Your task to perform on an android device: Show me recent news Image 0: 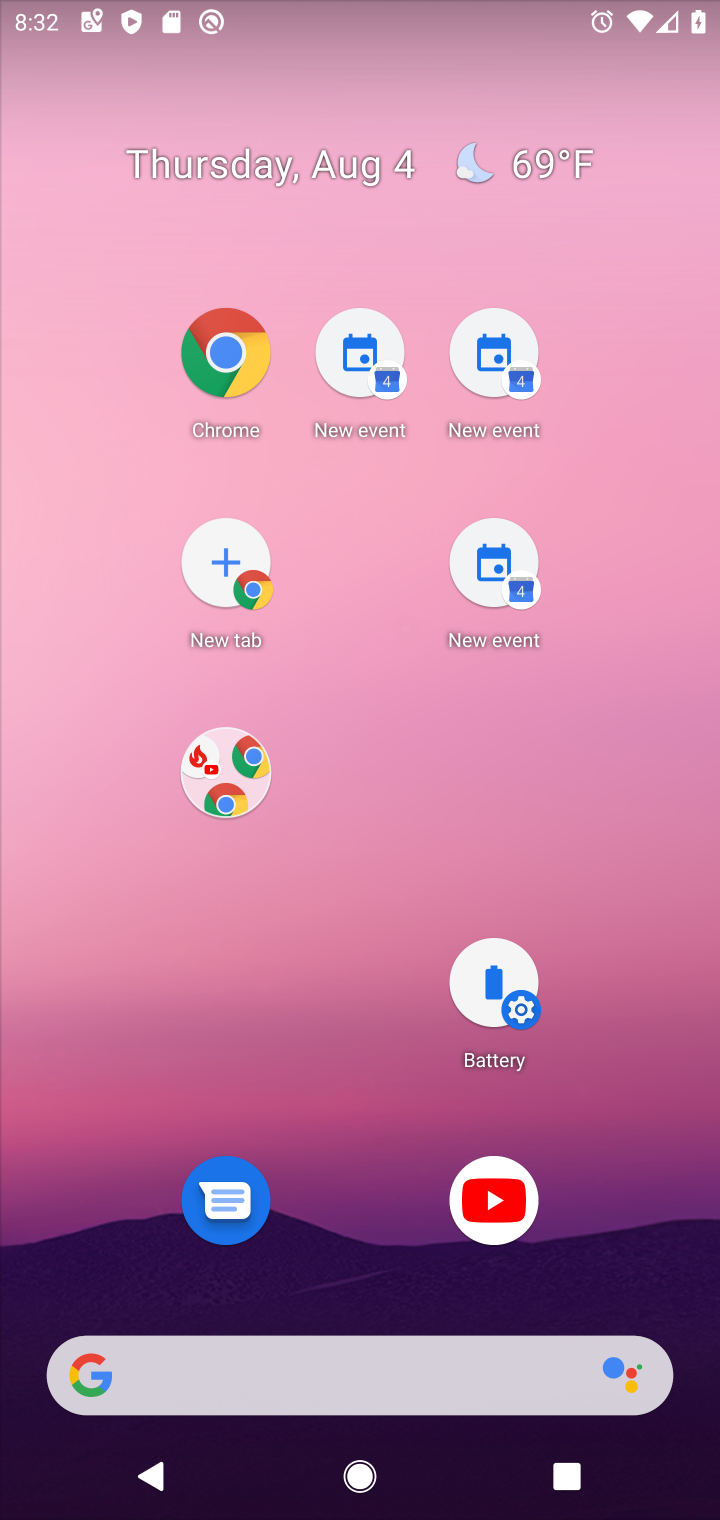
Step 0: click (408, 418)
Your task to perform on an android device: Show me recent news Image 1: 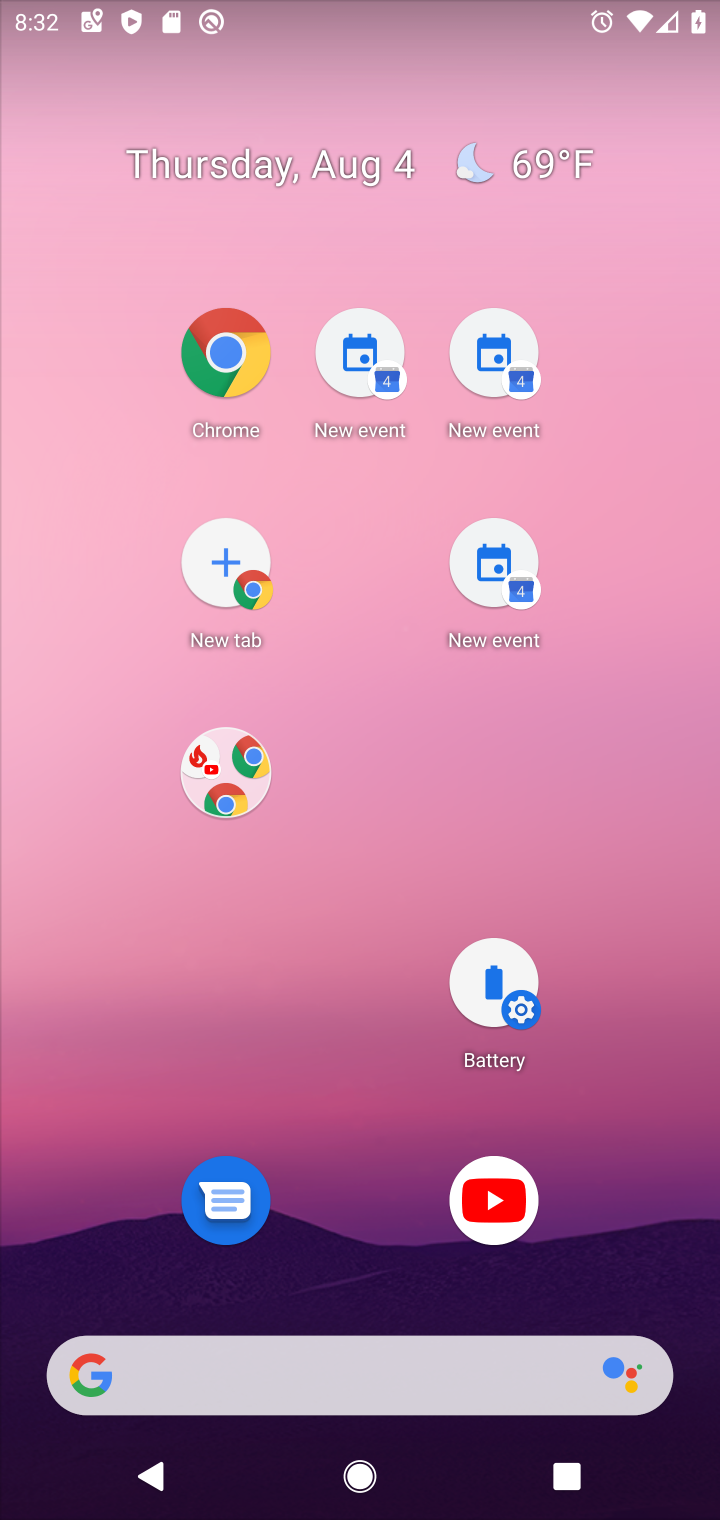
Step 1: drag from (431, 474) to (395, 301)
Your task to perform on an android device: Show me recent news Image 2: 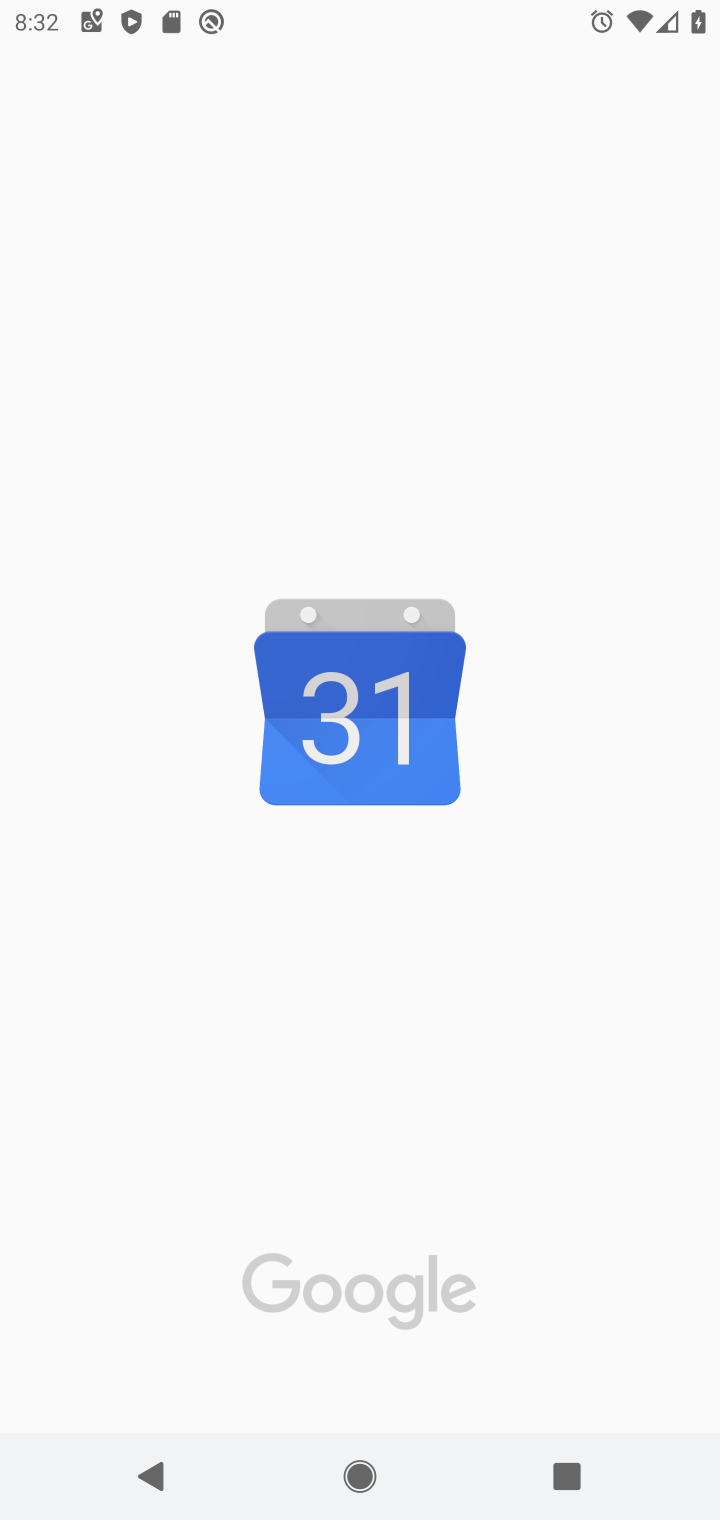
Step 2: drag from (303, 738) to (291, 299)
Your task to perform on an android device: Show me recent news Image 3: 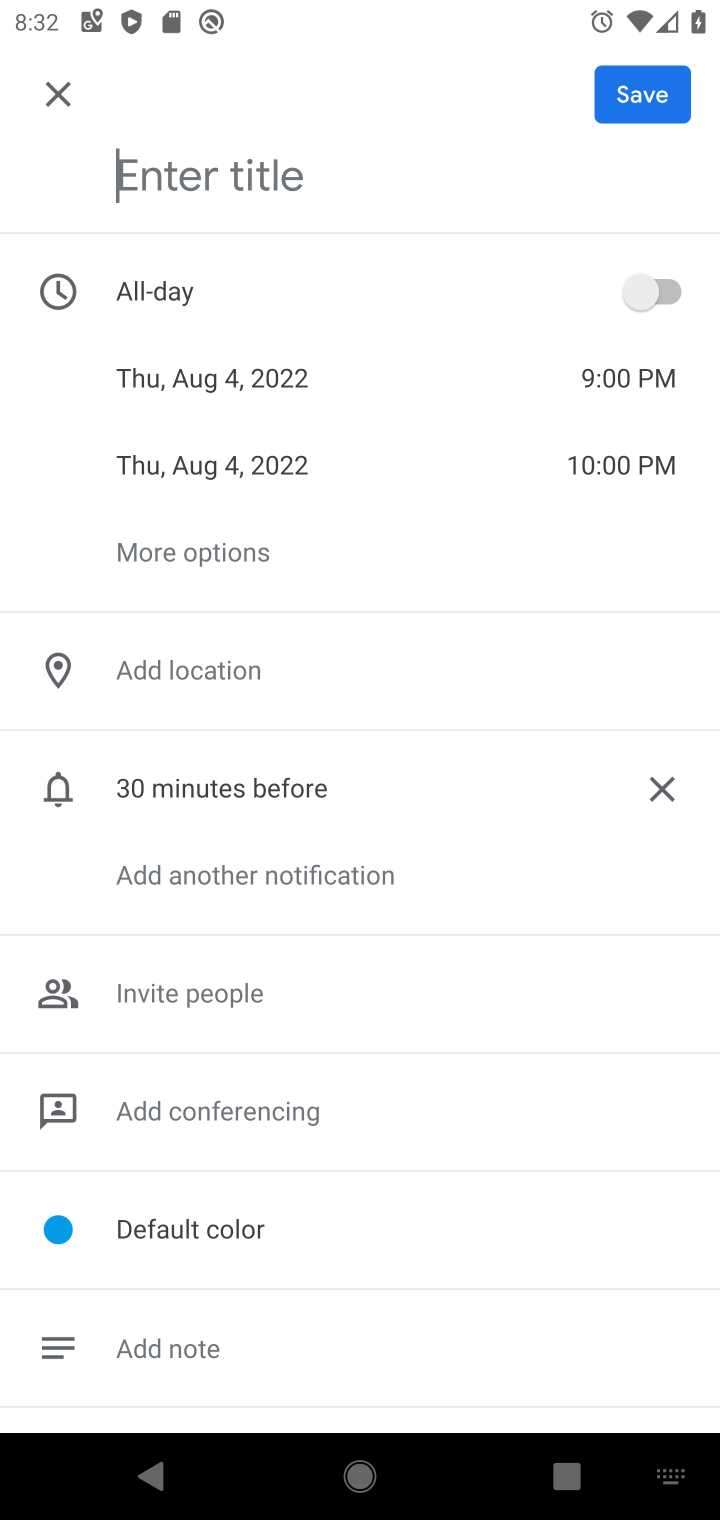
Step 3: click (45, 90)
Your task to perform on an android device: Show me recent news Image 4: 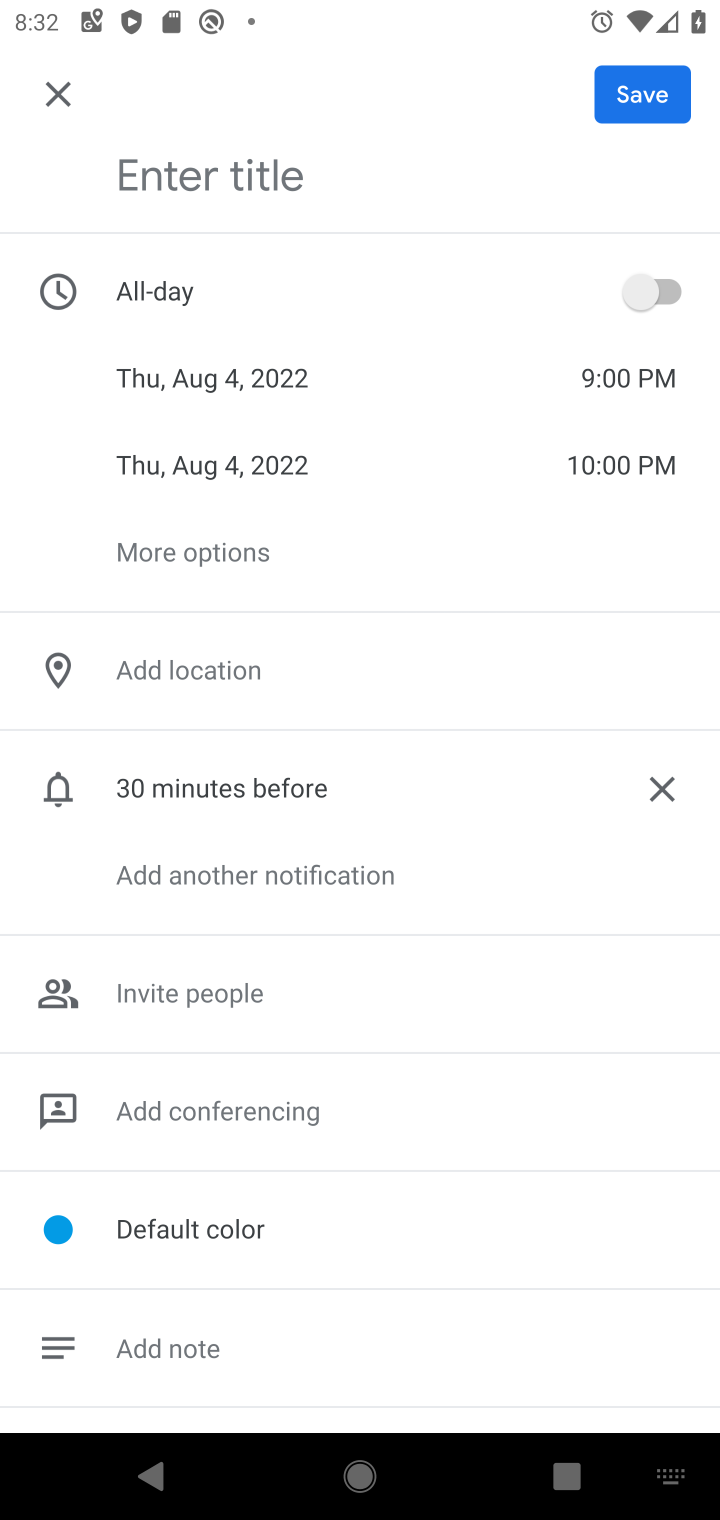
Step 4: click (52, 92)
Your task to perform on an android device: Show me recent news Image 5: 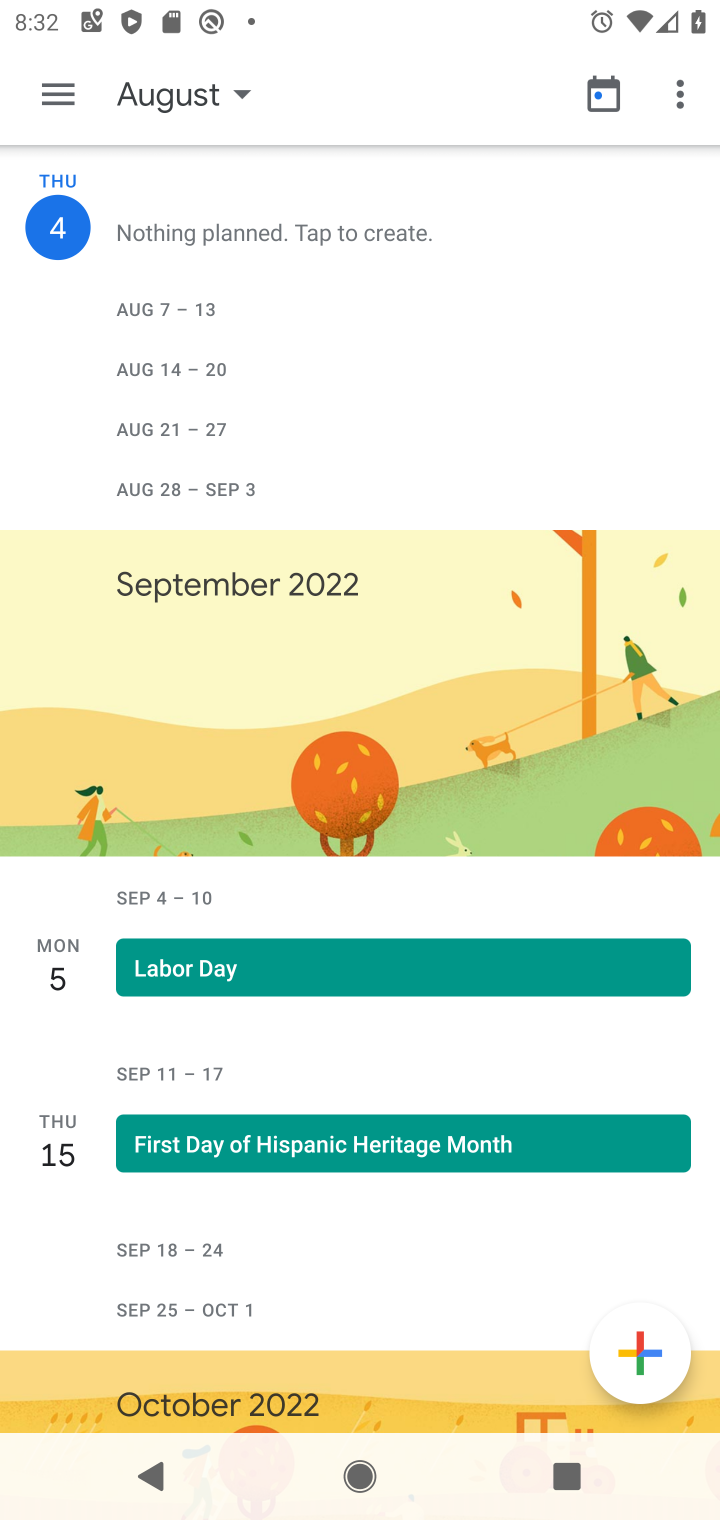
Step 5: press back button
Your task to perform on an android device: Show me recent news Image 6: 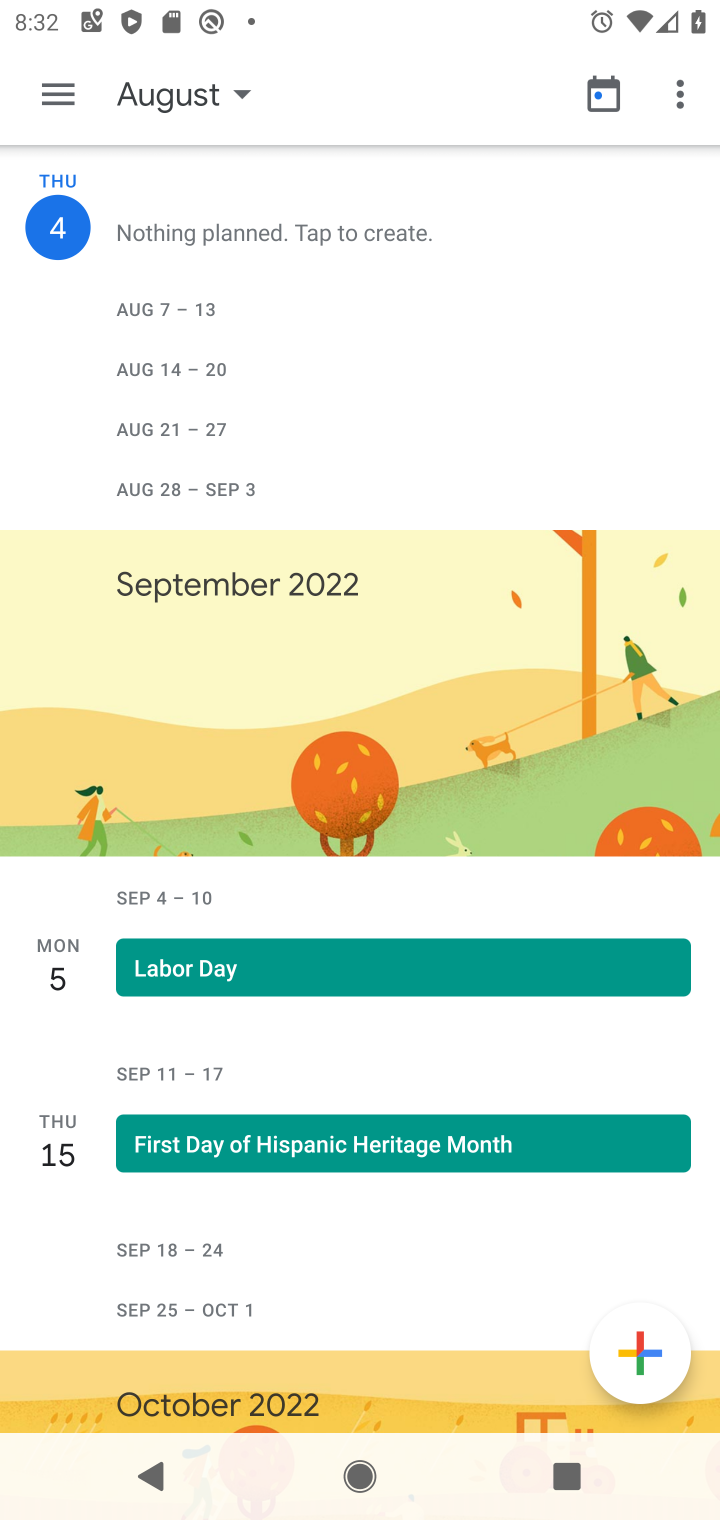
Step 6: press back button
Your task to perform on an android device: Show me recent news Image 7: 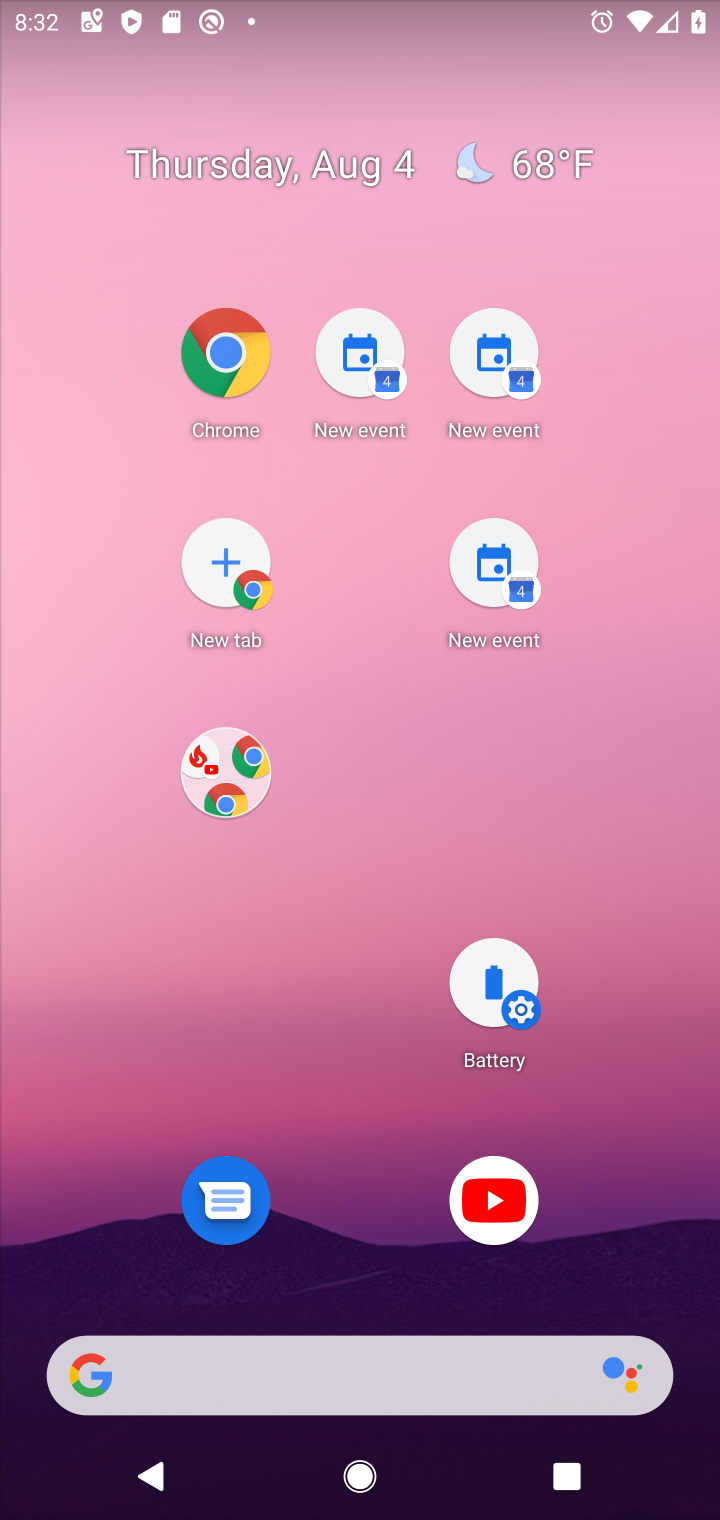
Step 7: press back button
Your task to perform on an android device: Show me recent news Image 8: 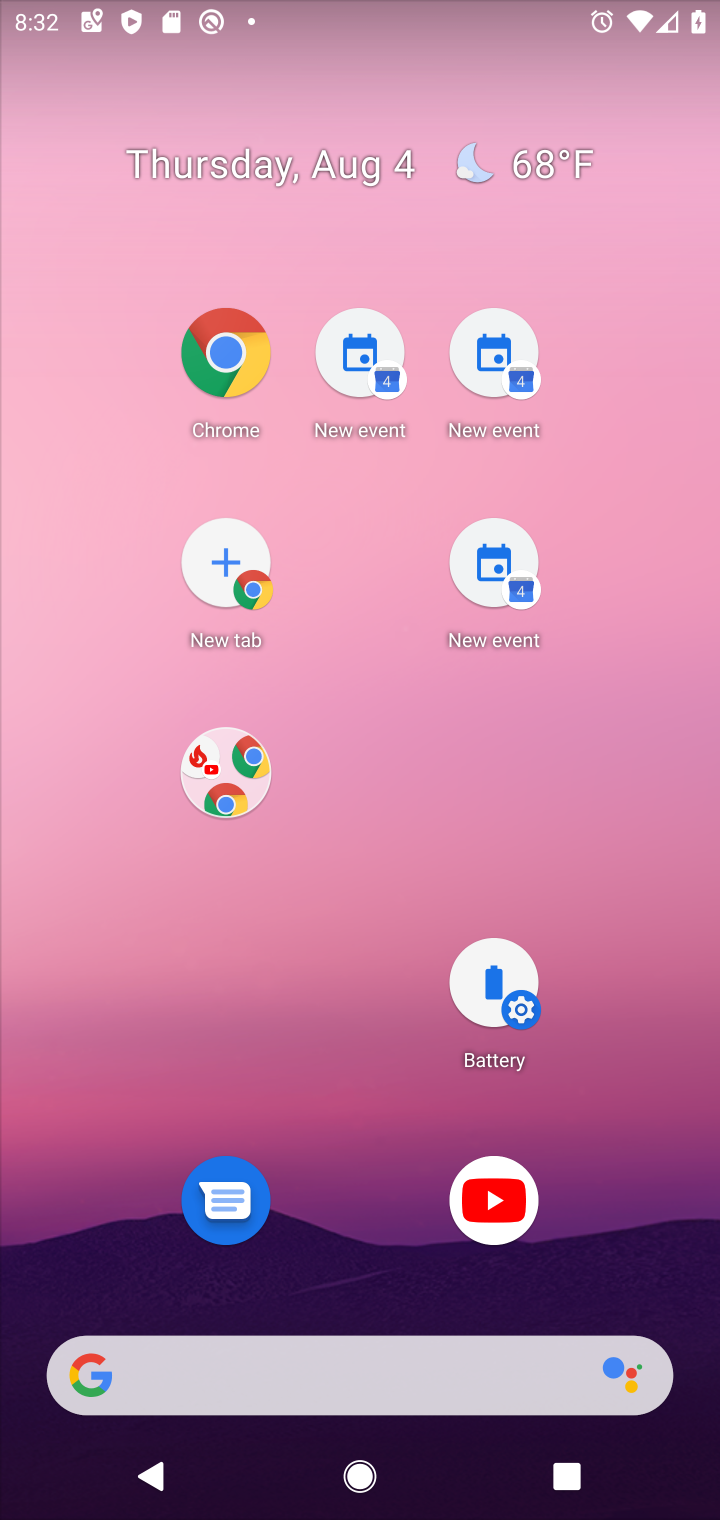
Step 8: drag from (399, 518) to (330, 29)
Your task to perform on an android device: Show me recent news Image 9: 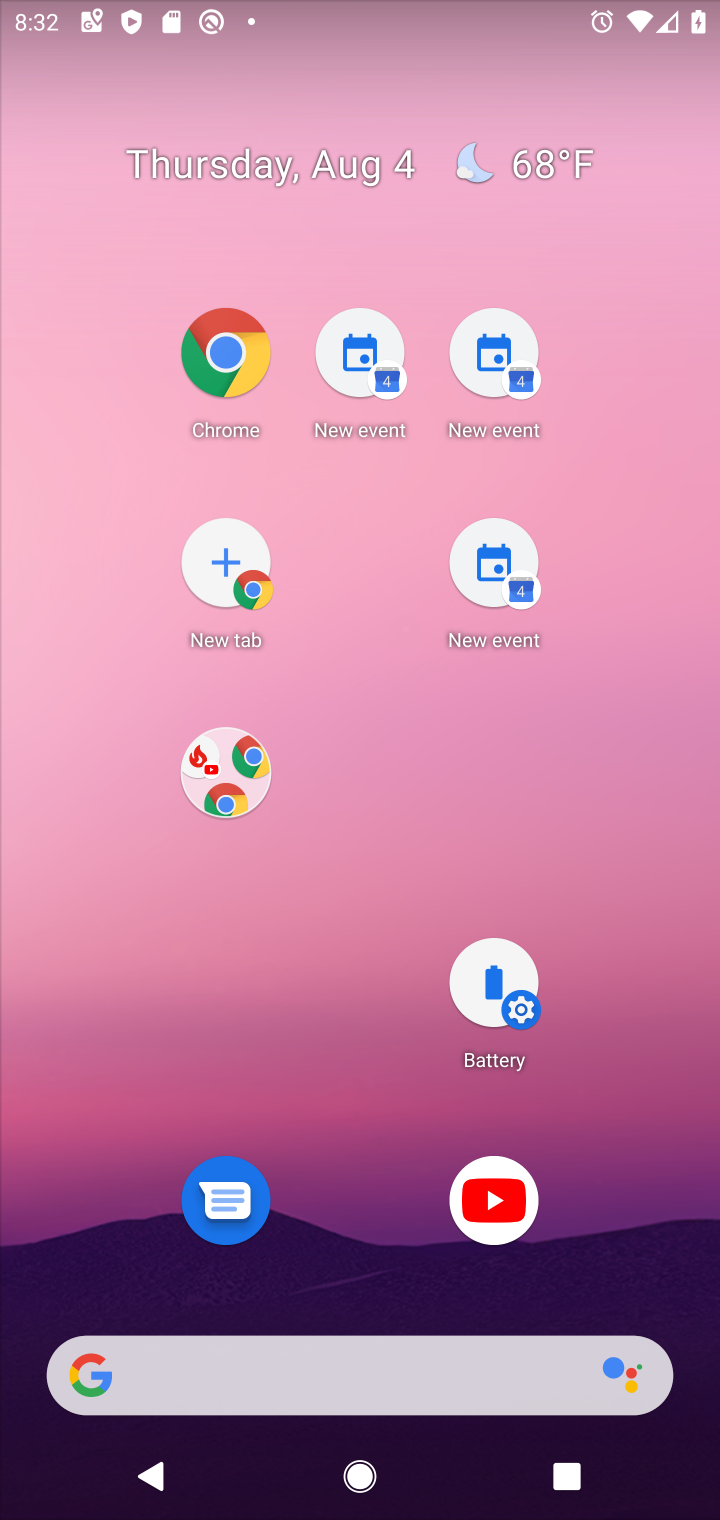
Step 9: drag from (176, 355) to (266, 263)
Your task to perform on an android device: Show me recent news Image 10: 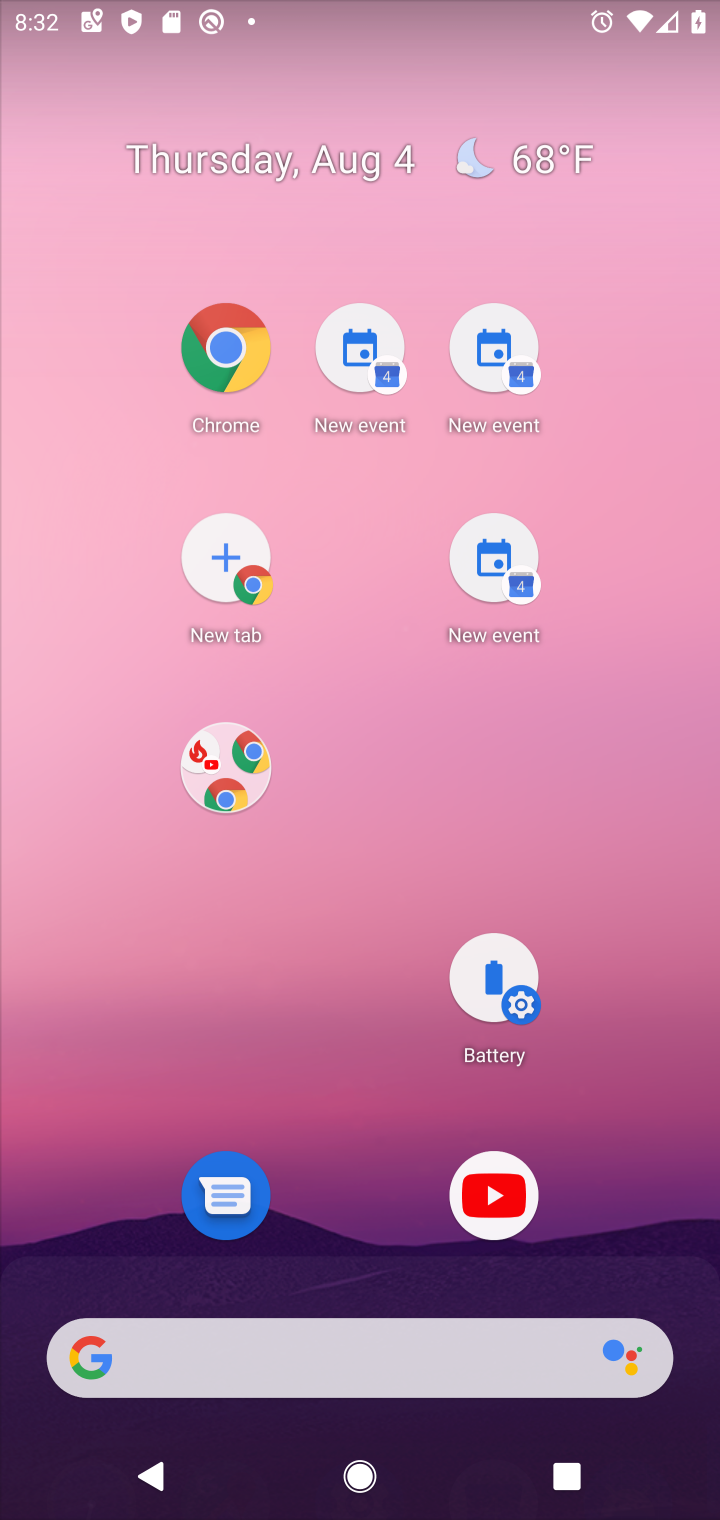
Step 10: click (223, 126)
Your task to perform on an android device: Show me recent news Image 11: 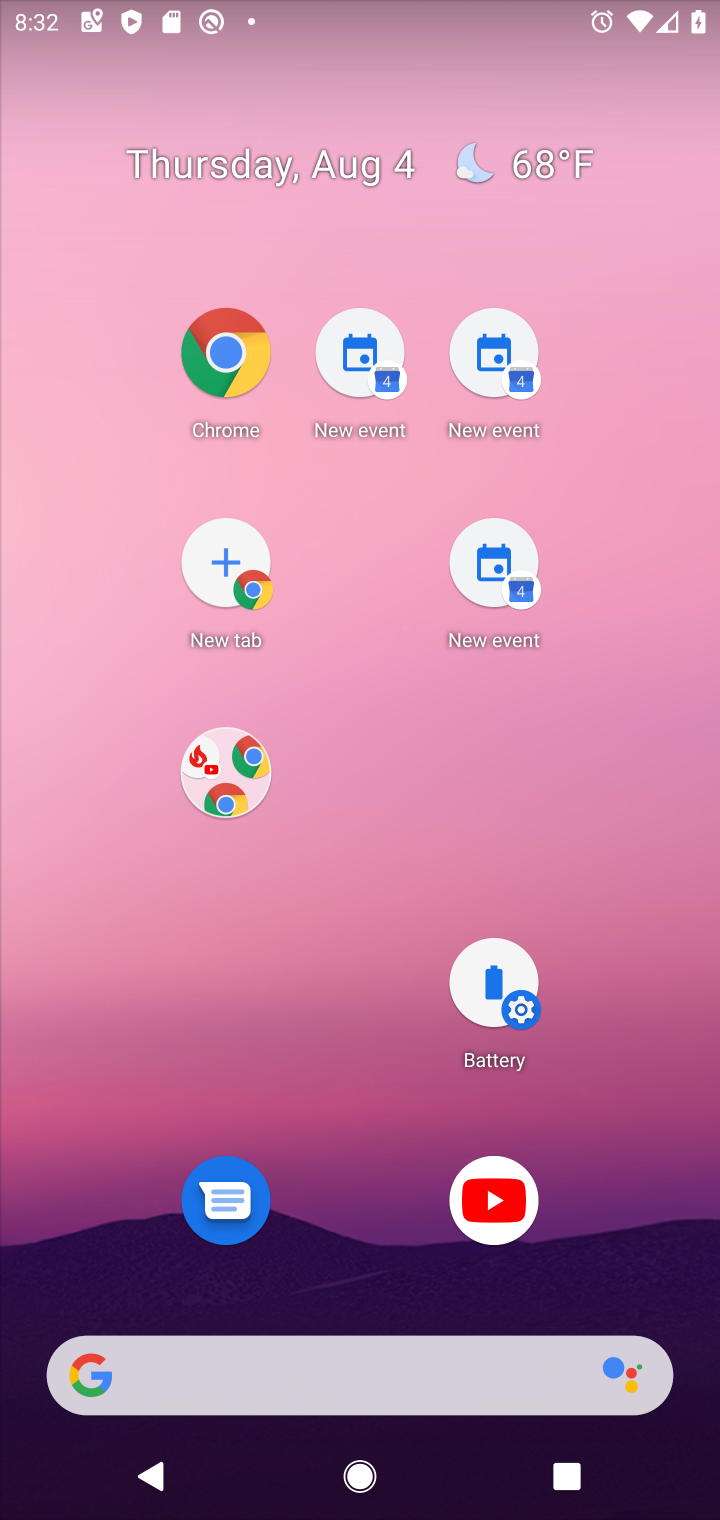
Step 11: click (390, 684)
Your task to perform on an android device: Show me recent news Image 12: 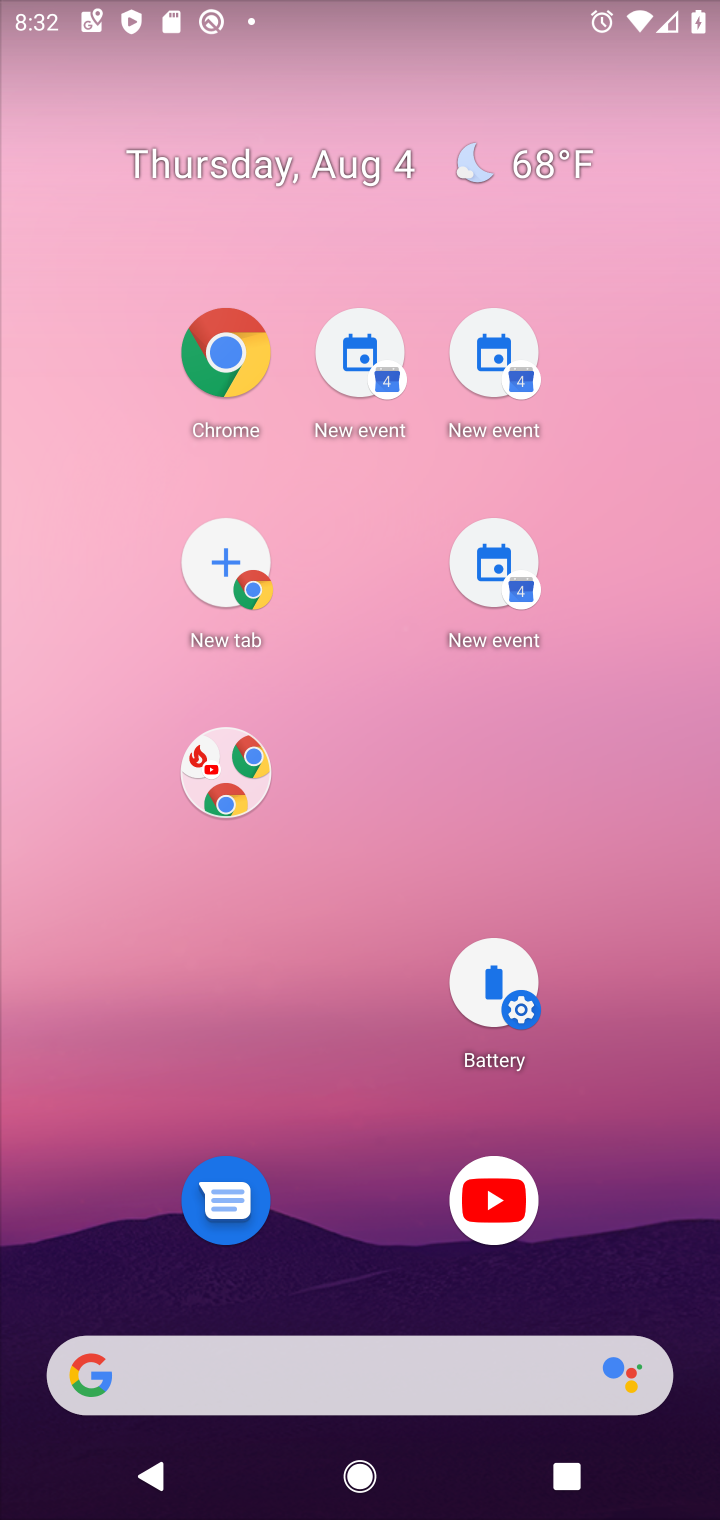
Step 12: drag from (438, 797) to (356, 377)
Your task to perform on an android device: Show me recent news Image 13: 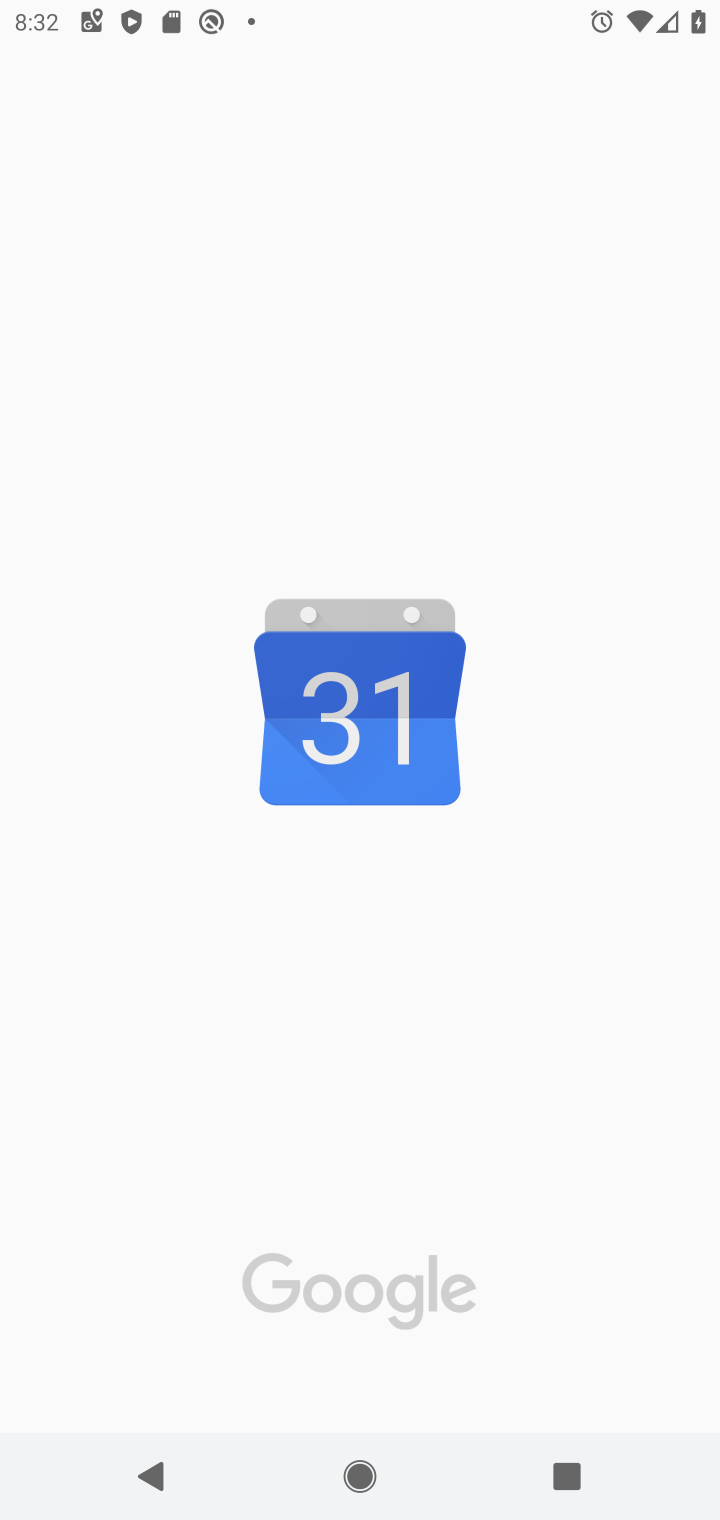
Step 13: drag from (467, 981) to (419, 541)
Your task to perform on an android device: Show me recent news Image 14: 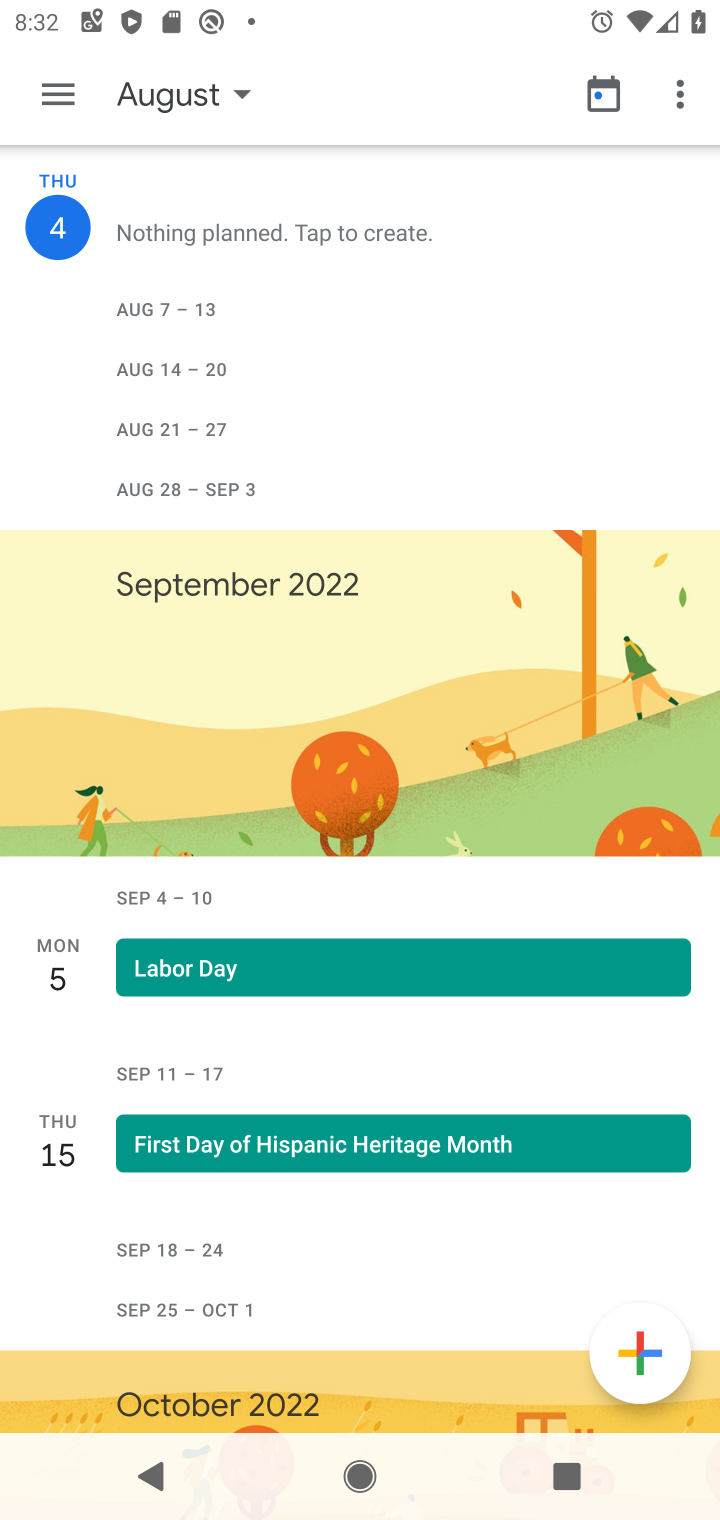
Step 14: press home button
Your task to perform on an android device: Show me recent news Image 15: 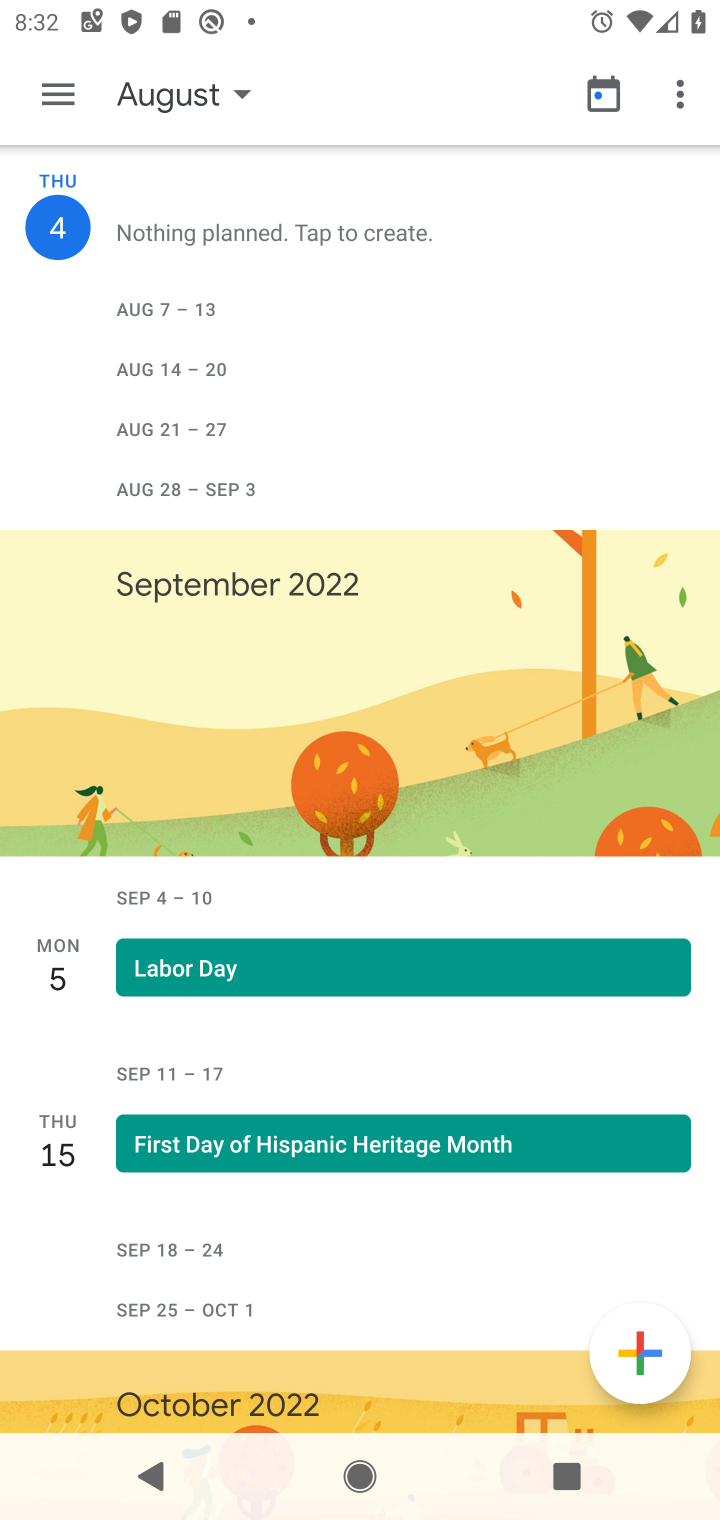
Step 15: press back button
Your task to perform on an android device: Show me recent news Image 16: 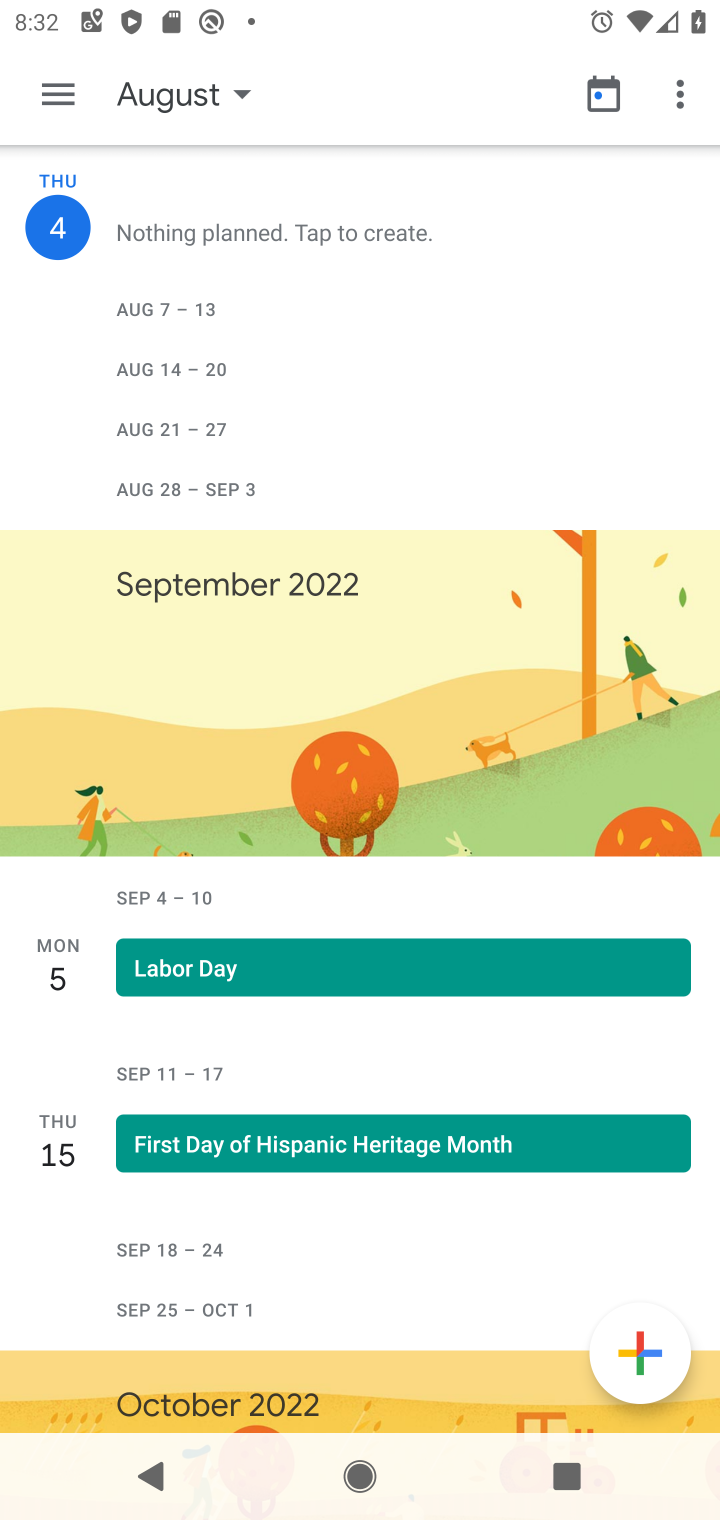
Step 16: press home button
Your task to perform on an android device: Show me recent news Image 17: 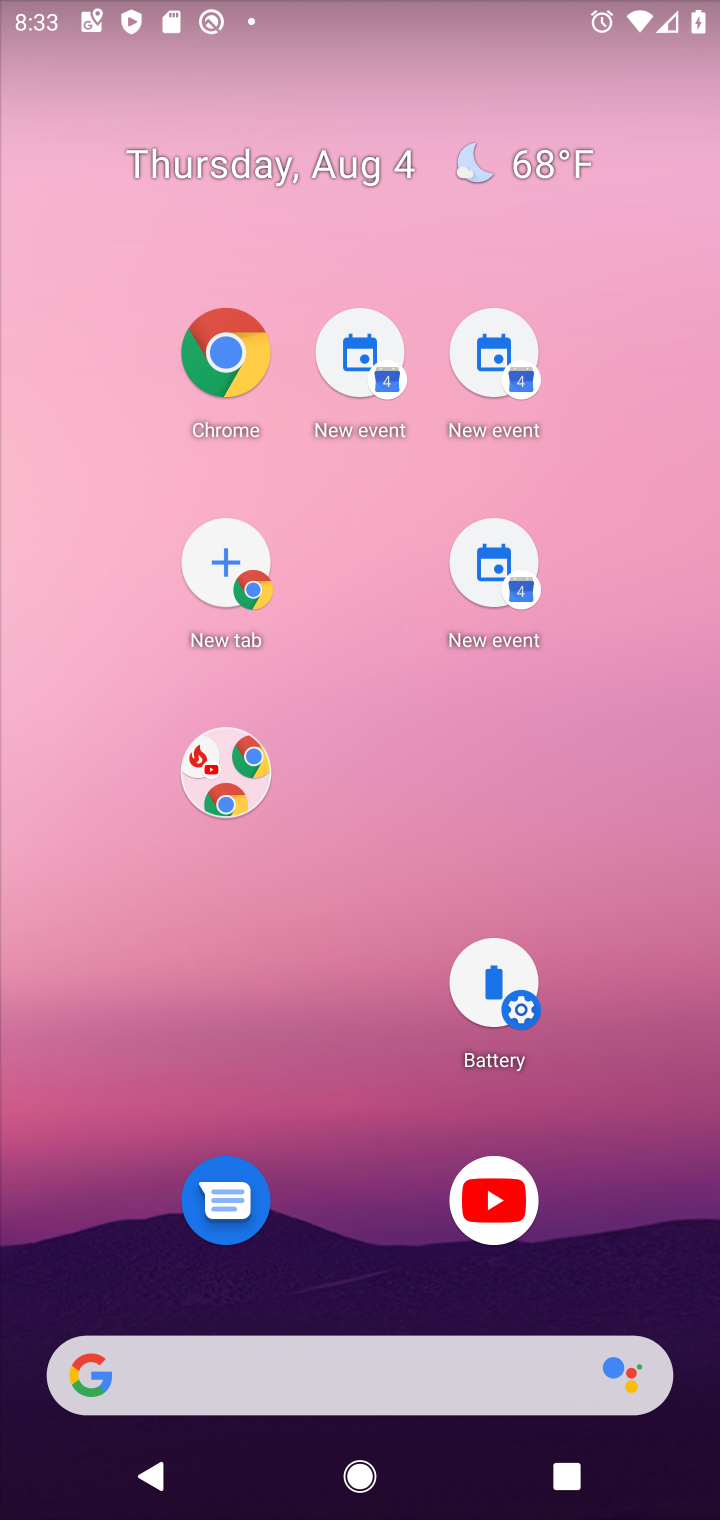
Step 17: drag from (409, 1288) to (289, 112)
Your task to perform on an android device: Show me recent news Image 18: 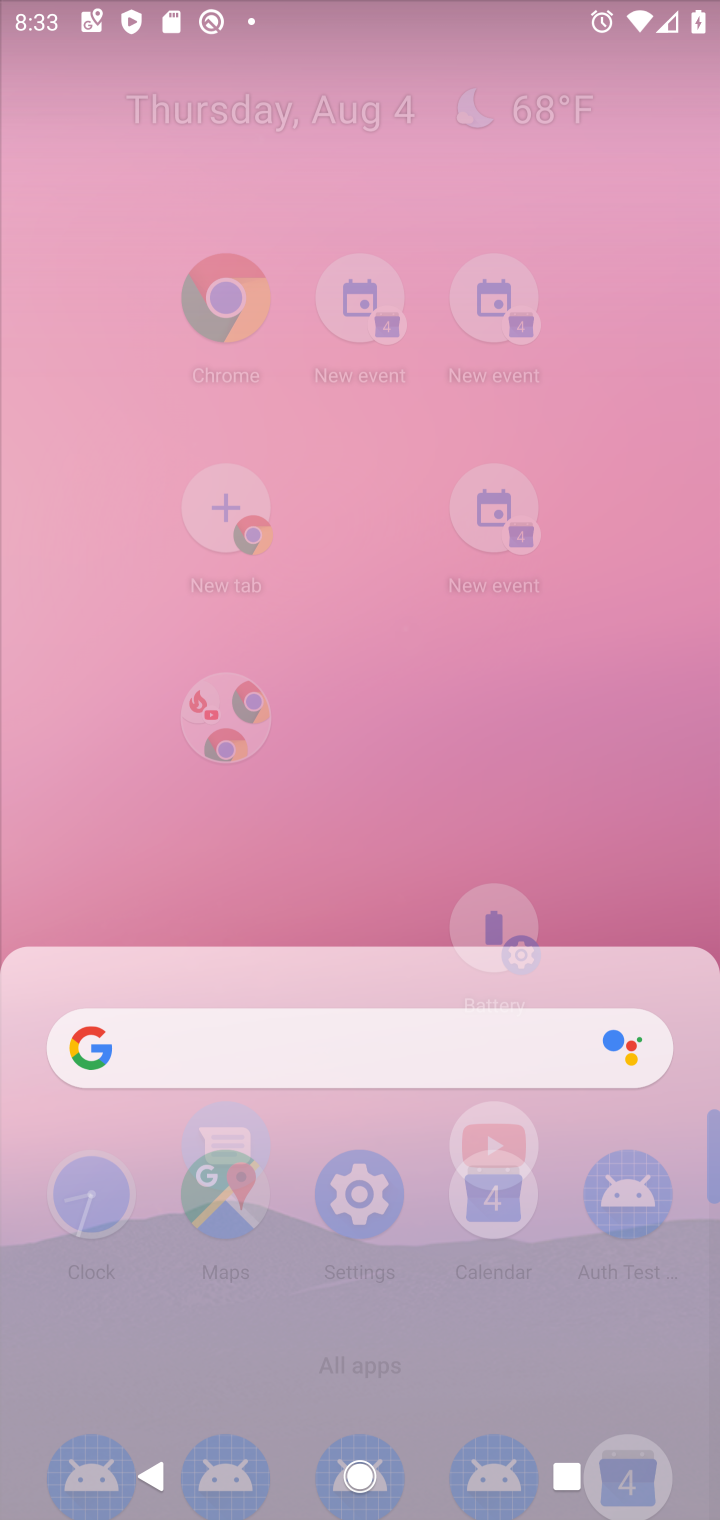
Step 18: drag from (347, 699) to (307, 334)
Your task to perform on an android device: Show me recent news Image 19: 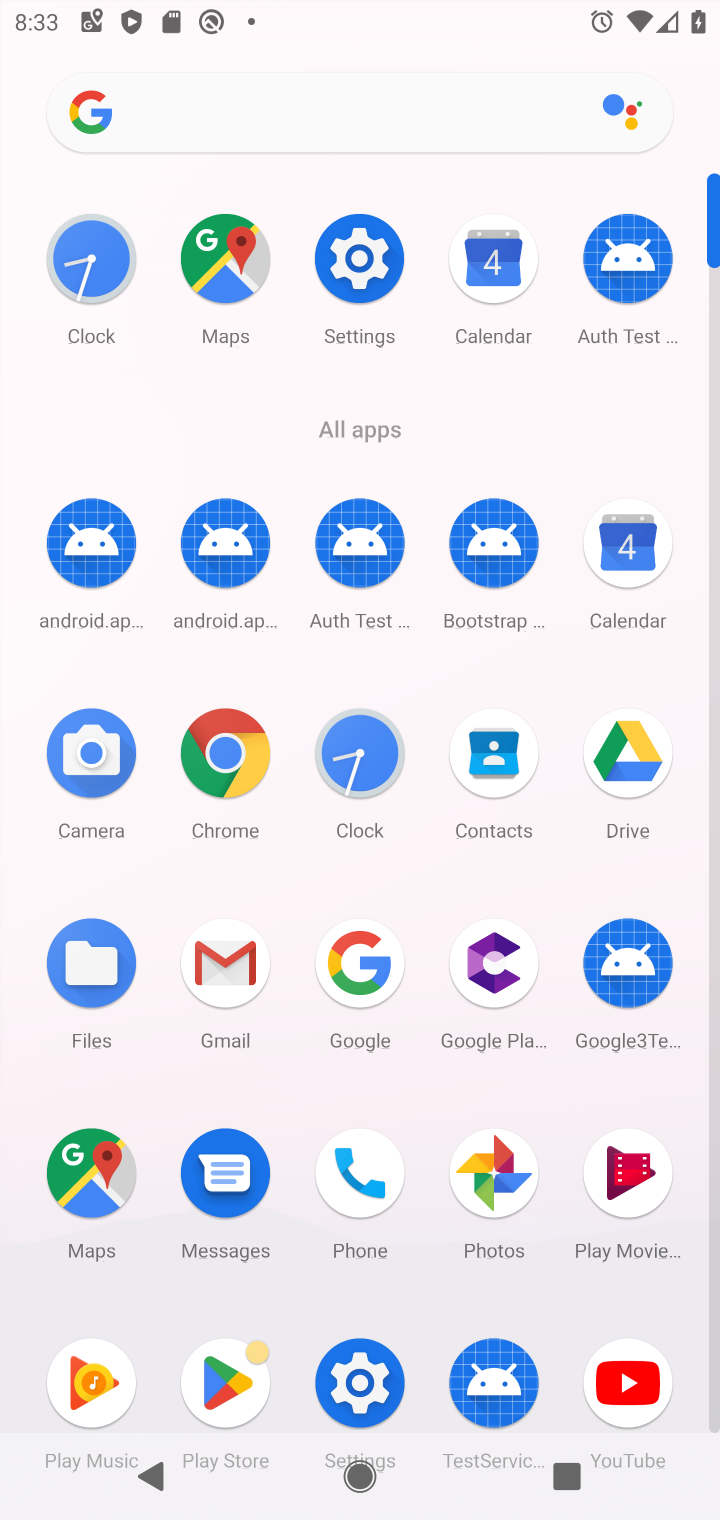
Step 19: click (228, 743)
Your task to perform on an android device: Show me recent news Image 20: 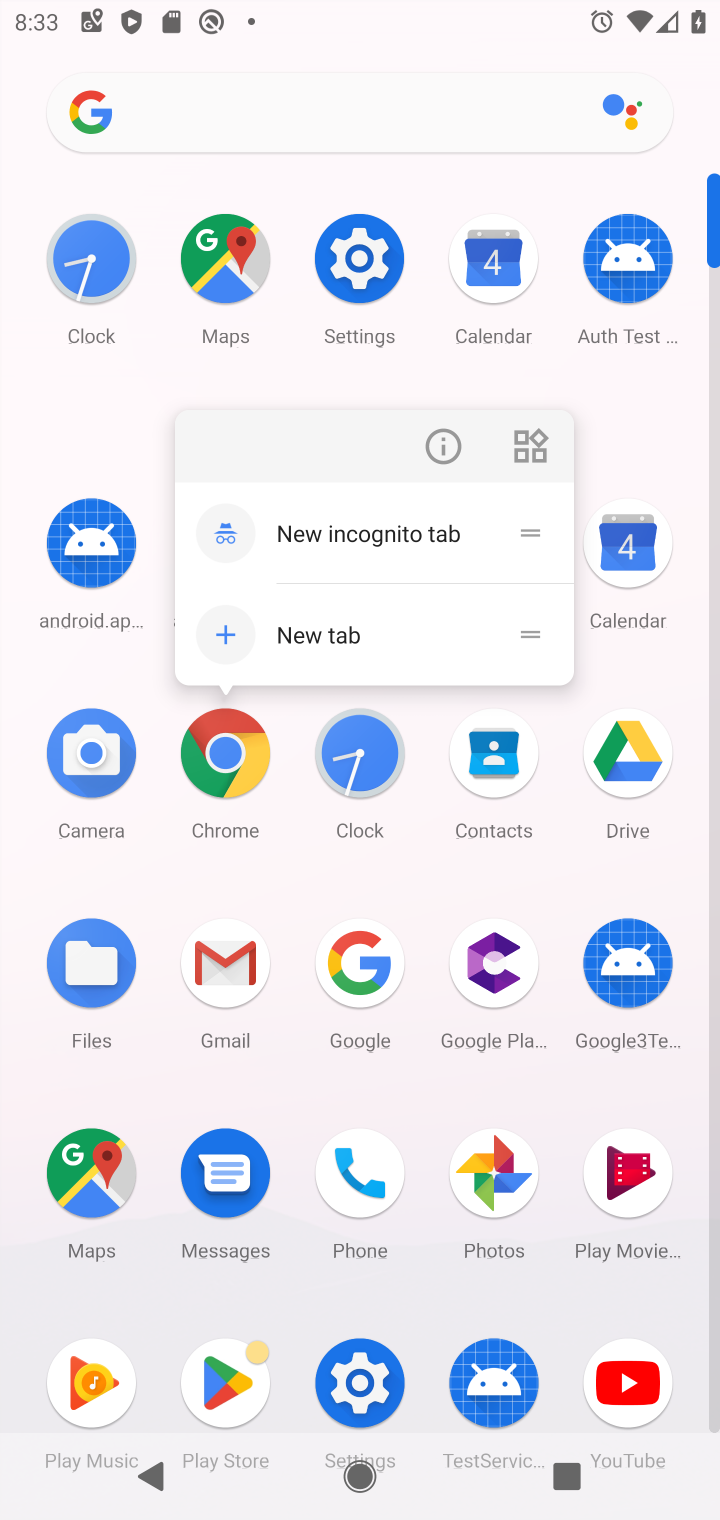
Step 20: click (301, 632)
Your task to perform on an android device: Show me recent news Image 21: 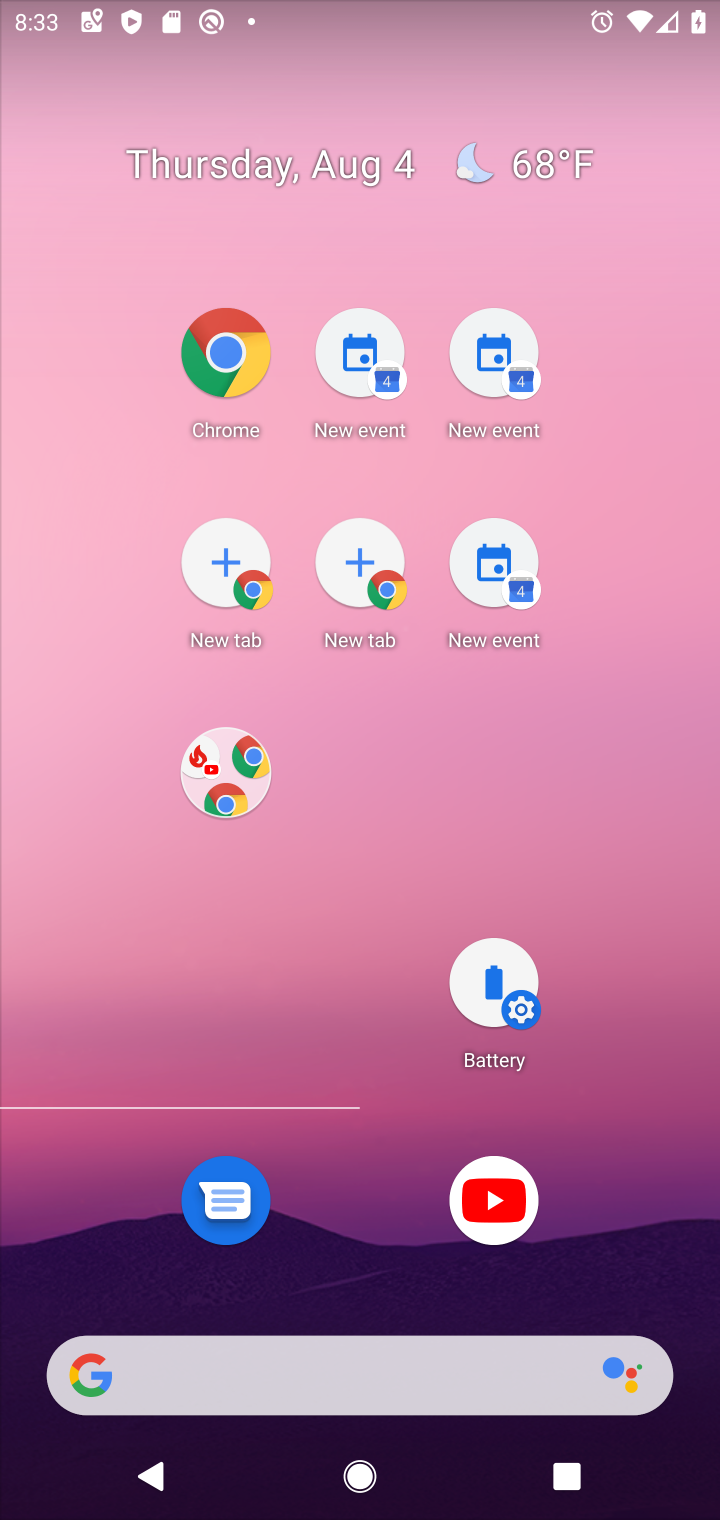
Step 21: drag from (305, 1358) to (395, 314)
Your task to perform on an android device: Show me recent news Image 22: 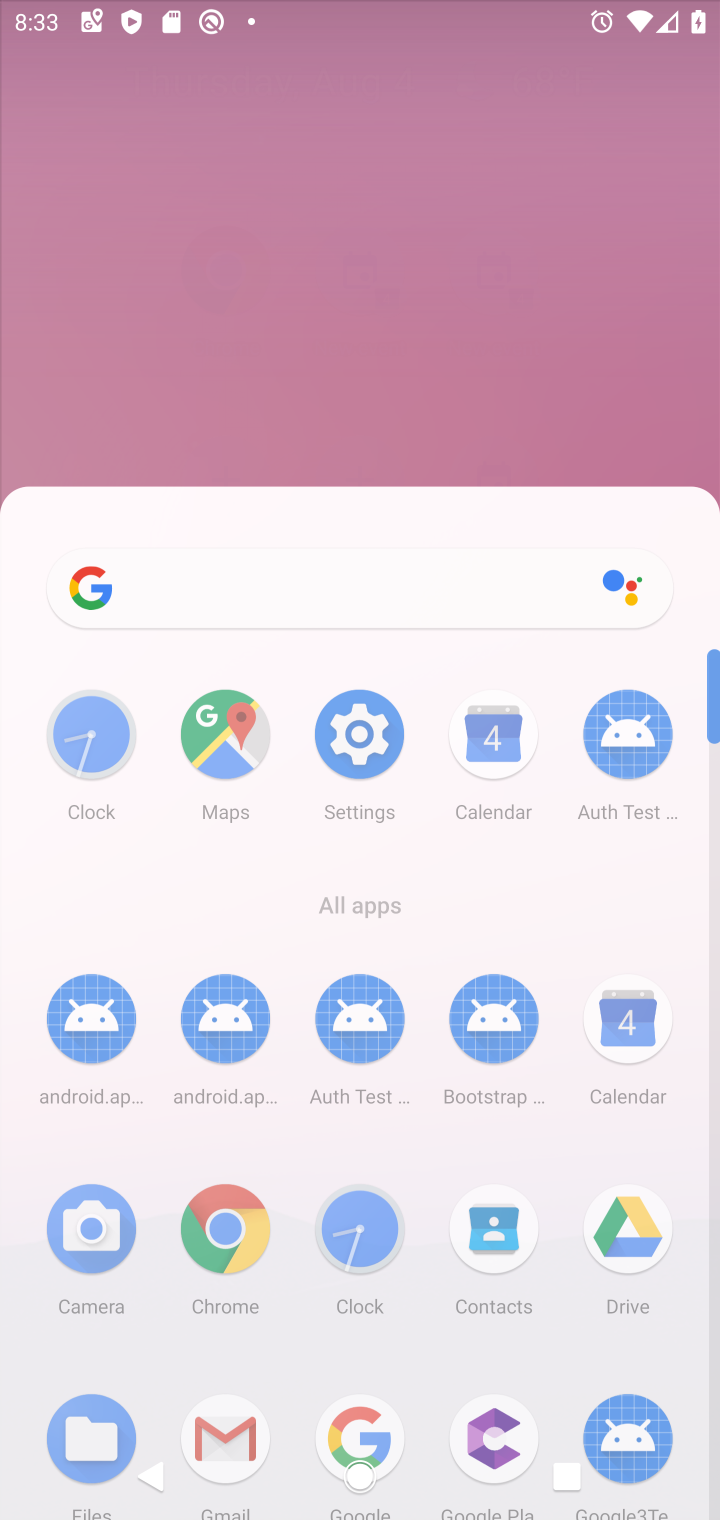
Step 22: drag from (395, 884) to (273, 185)
Your task to perform on an android device: Show me recent news Image 23: 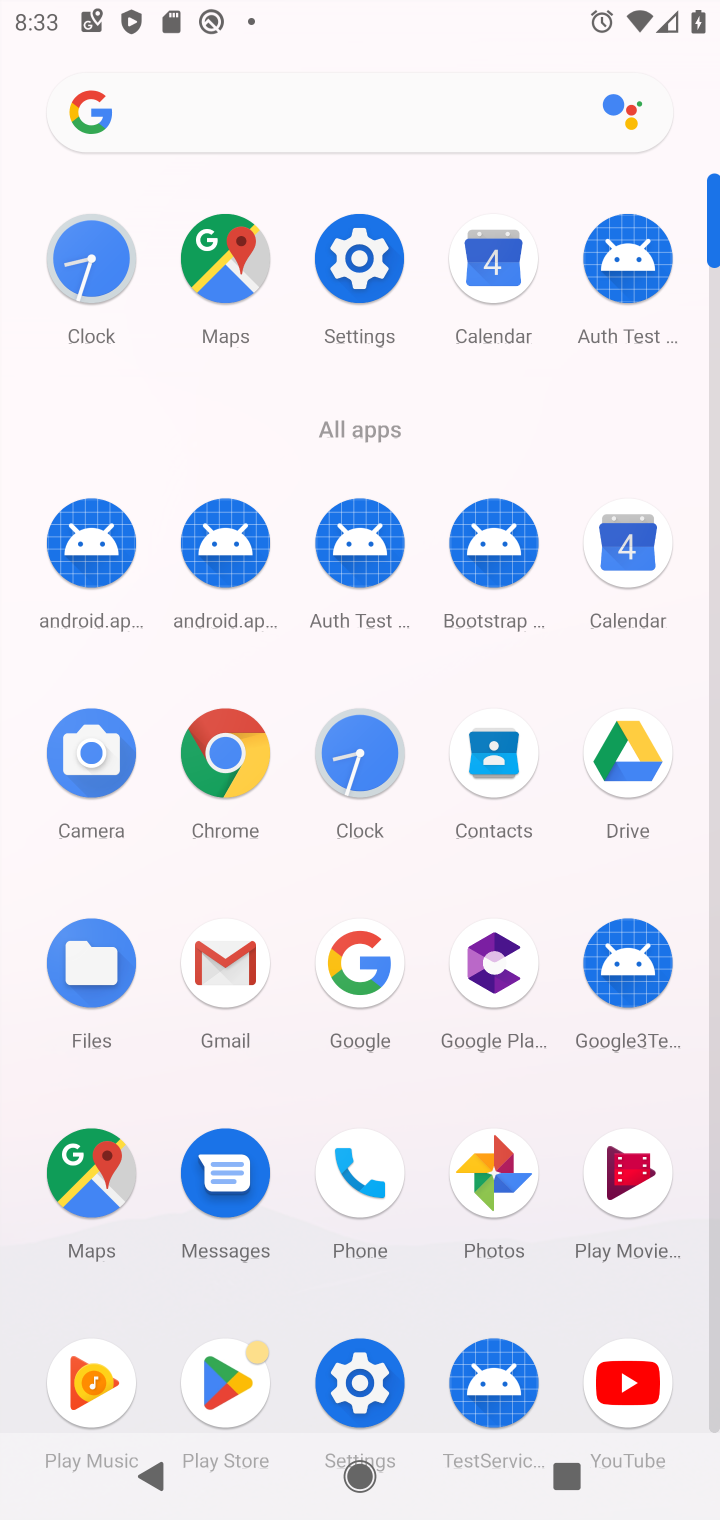
Step 23: click (224, 765)
Your task to perform on an android device: Show me recent news Image 24: 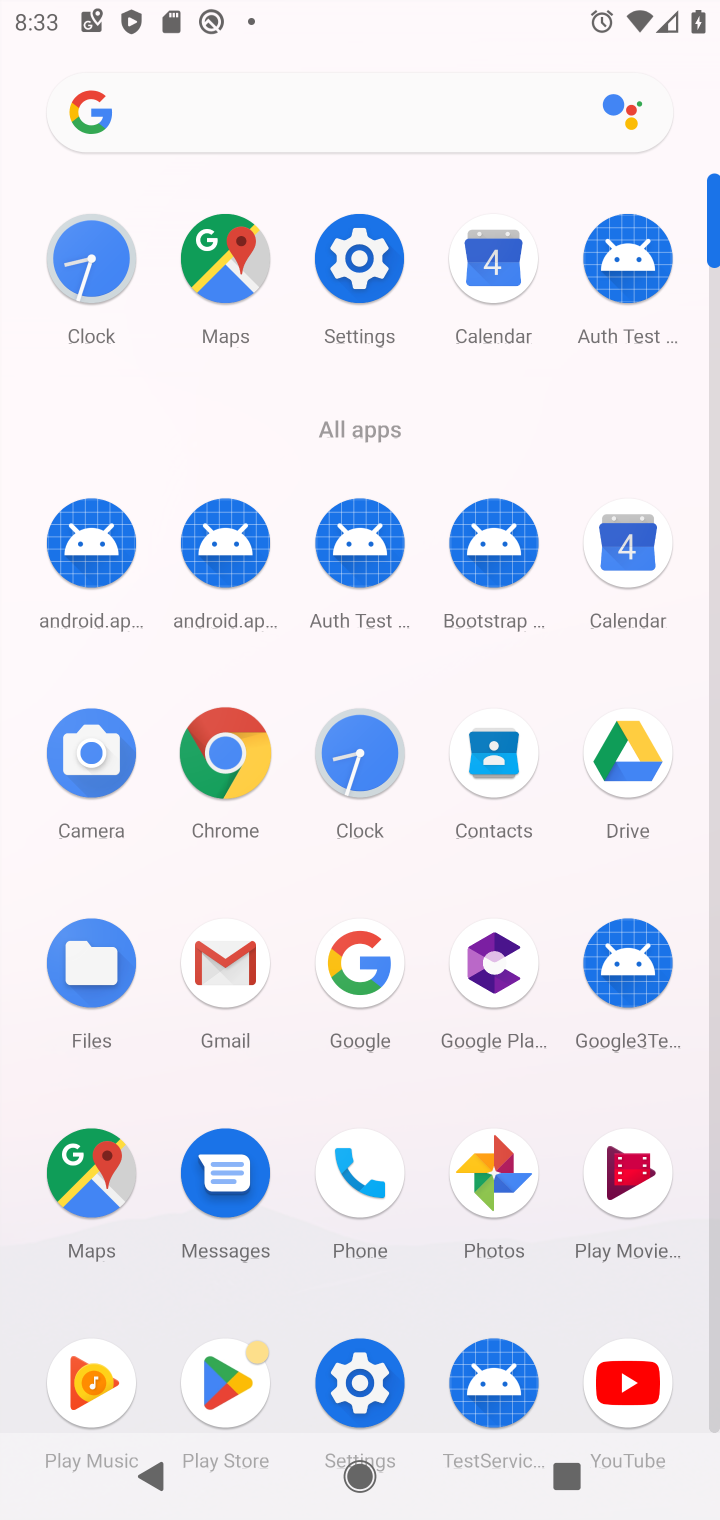
Step 24: click (218, 763)
Your task to perform on an android device: Show me recent news Image 25: 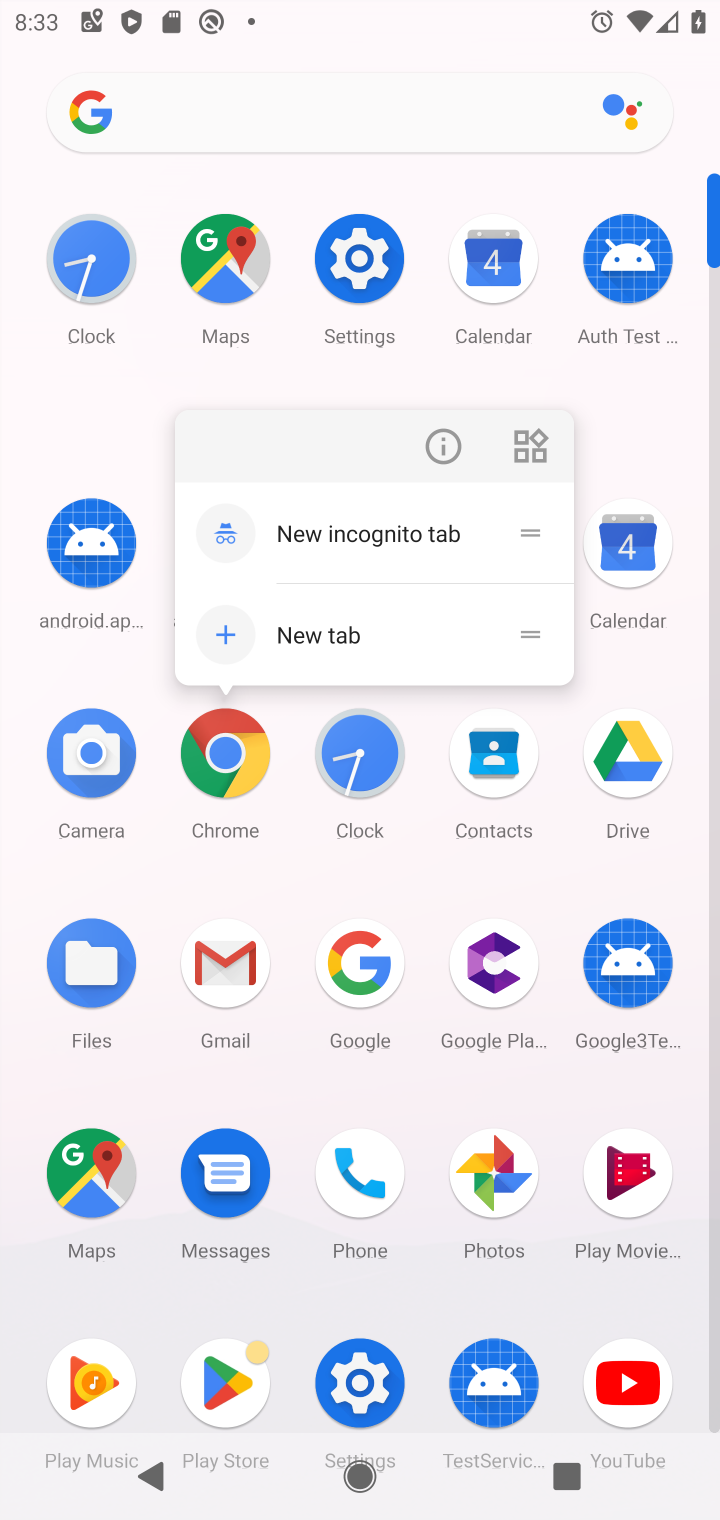
Step 25: click (332, 635)
Your task to perform on an android device: Show me recent news Image 26: 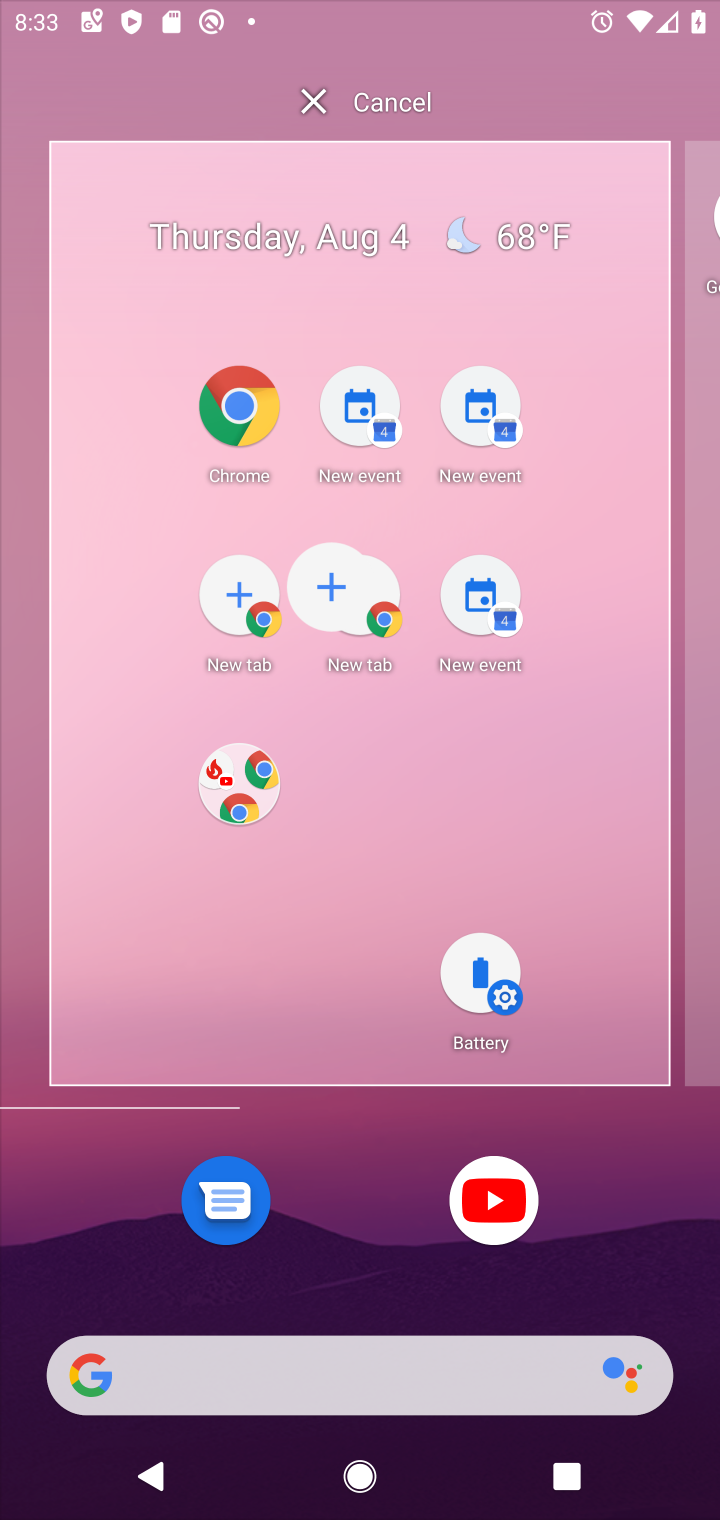
Step 26: click (332, 635)
Your task to perform on an android device: Show me recent news Image 27: 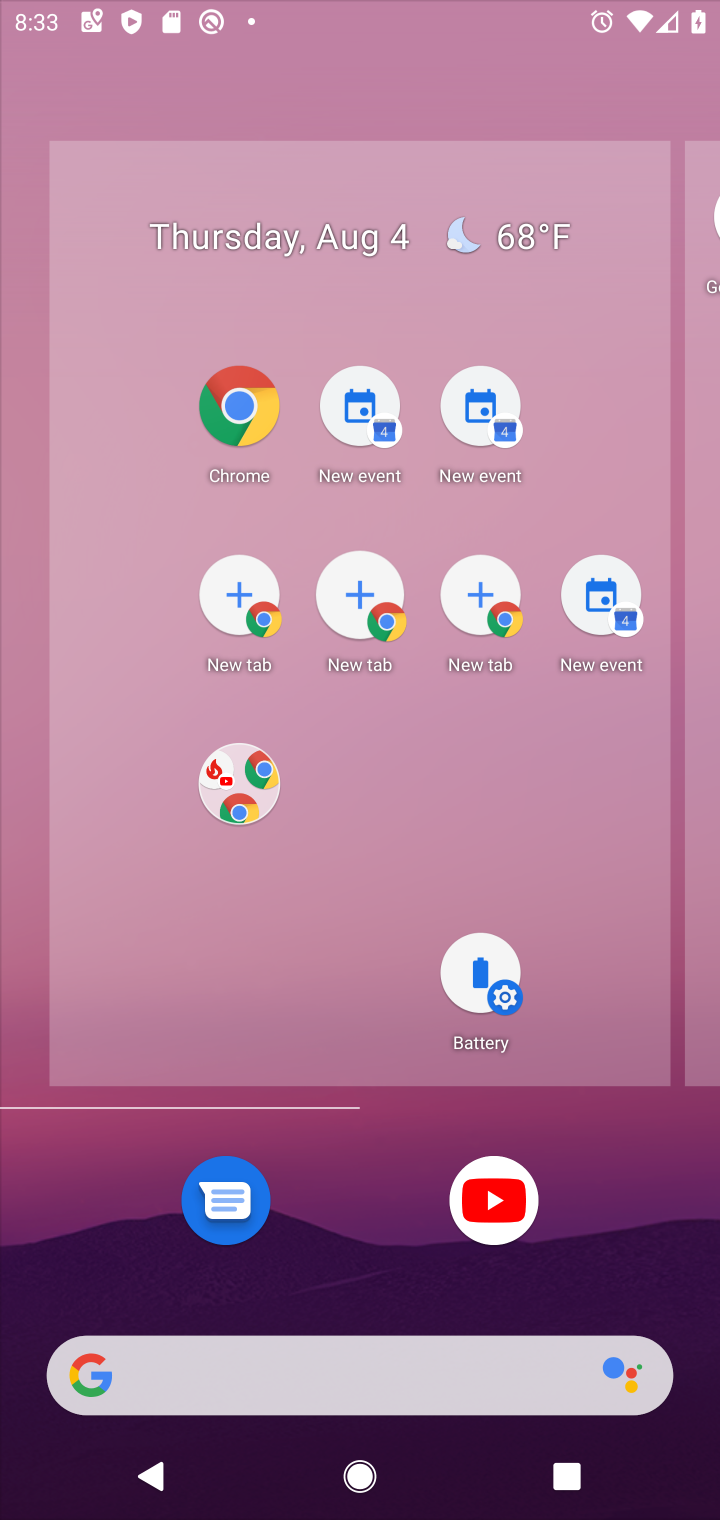
Step 27: task complete